Your task to perform on an android device: turn smart compose on in the gmail app Image 0: 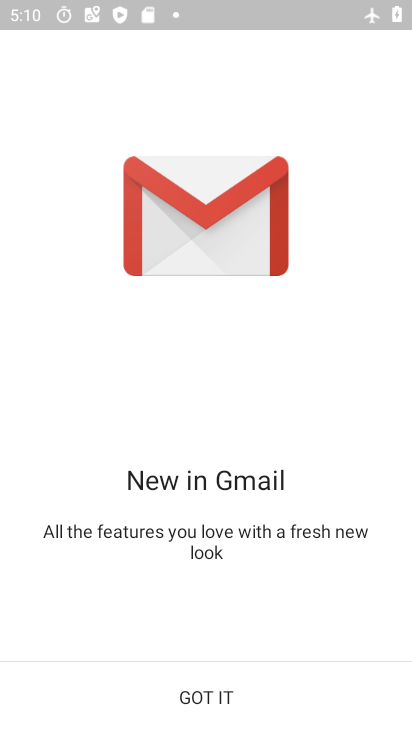
Step 0: press home button
Your task to perform on an android device: turn smart compose on in the gmail app Image 1: 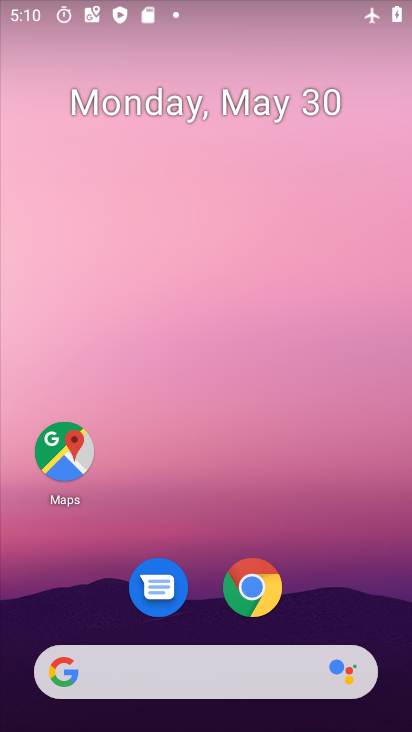
Step 1: drag from (320, 572) to (255, 112)
Your task to perform on an android device: turn smart compose on in the gmail app Image 2: 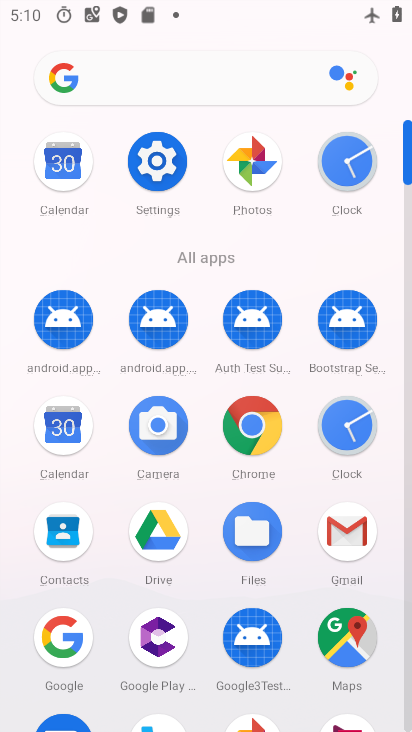
Step 2: click (344, 528)
Your task to perform on an android device: turn smart compose on in the gmail app Image 3: 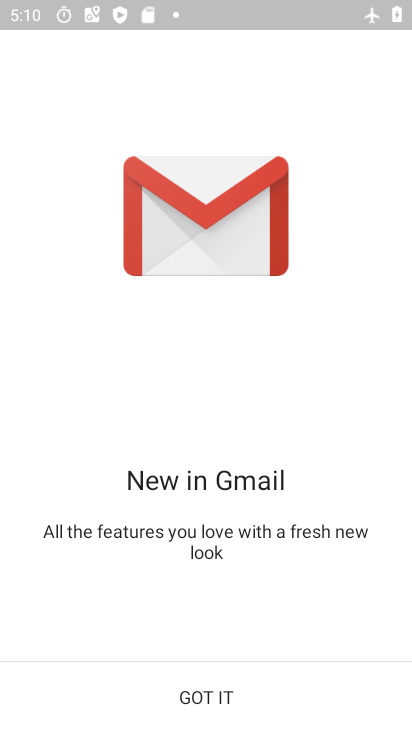
Step 3: click (224, 692)
Your task to perform on an android device: turn smart compose on in the gmail app Image 4: 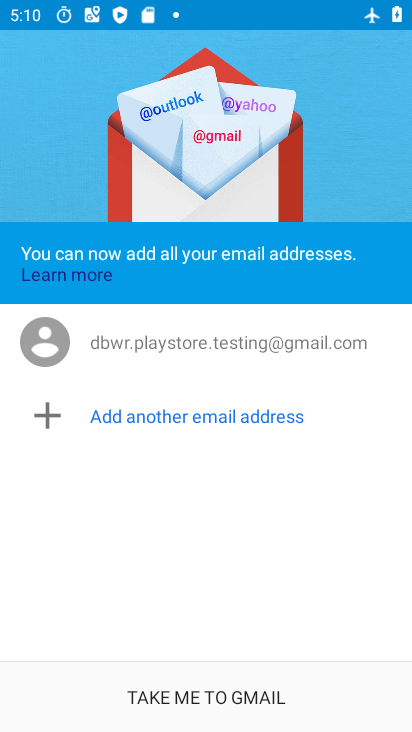
Step 4: click (224, 692)
Your task to perform on an android device: turn smart compose on in the gmail app Image 5: 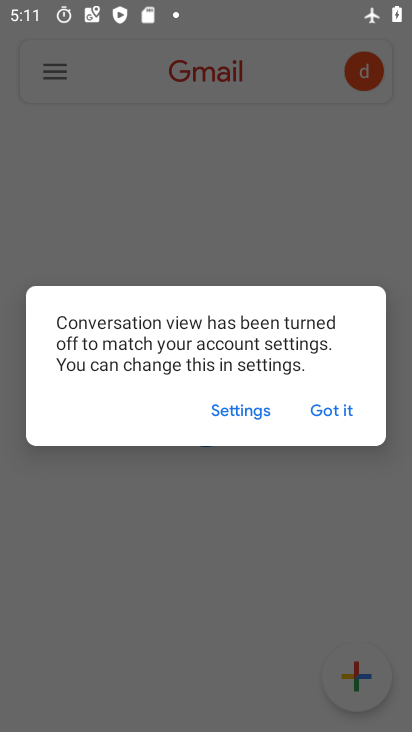
Step 5: click (331, 410)
Your task to perform on an android device: turn smart compose on in the gmail app Image 6: 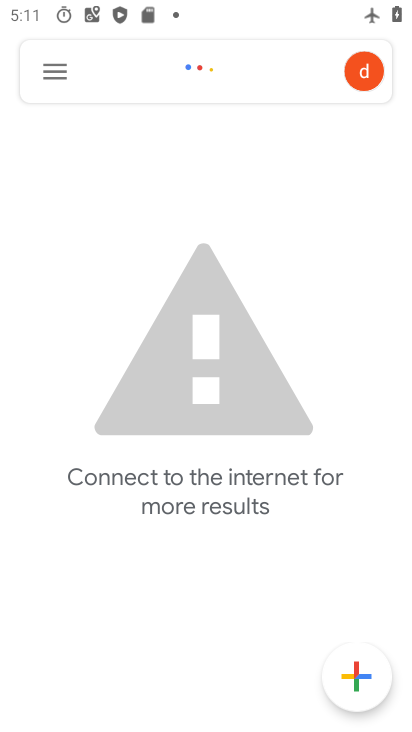
Step 6: click (53, 77)
Your task to perform on an android device: turn smart compose on in the gmail app Image 7: 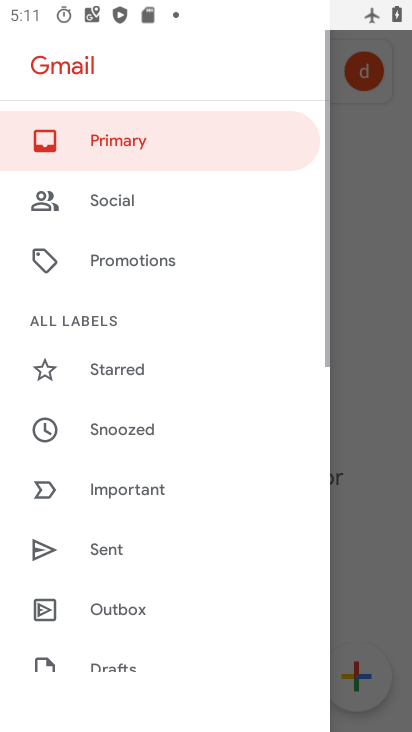
Step 7: drag from (138, 428) to (152, 384)
Your task to perform on an android device: turn smart compose on in the gmail app Image 8: 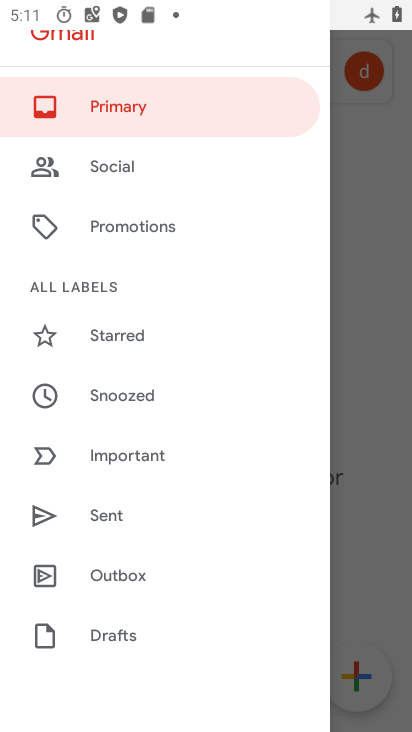
Step 8: drag from (122, 481) to (151, 405)
Your task to perform on an android device: turn smart compose on in the gmail app Image 9: 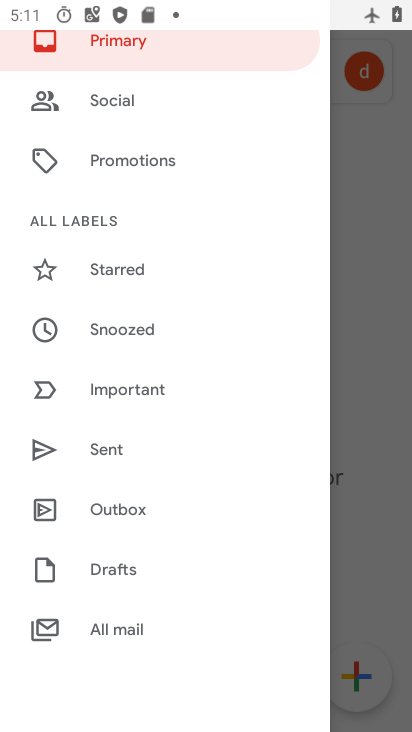
Step 9: drag from (115, 483) to (137, 403)
Your task to perform on an android device: turn smart compose on in the gmail app Image 10: 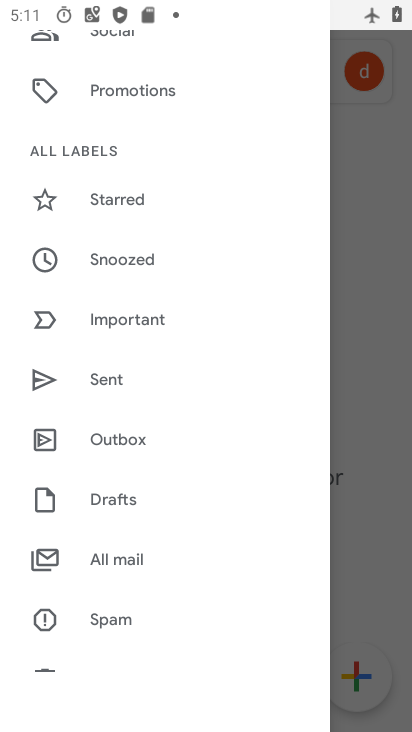
Step 10: drag from (100, 522) to (143, 439)
Your task to perform on an android device: turn smart compose on in the gmail app Image 11: 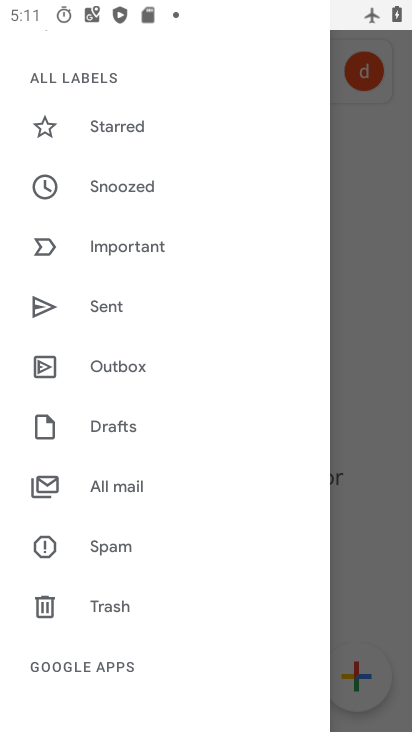
Step 11: drag from (104, 513) to (153, 427)
Your task to perform on an android device: turn smart compose on in the gmail app Image 12: 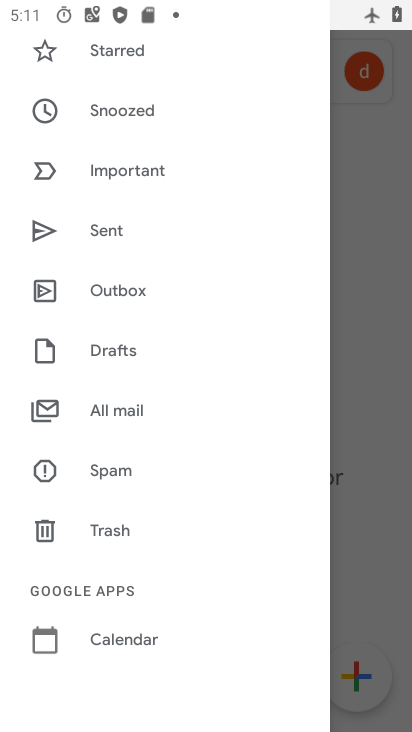
Step 12: drag from (118, 497) to (175, 416)
Your task to perform on an android device: turn smart compose on in the gmail app Image 13: 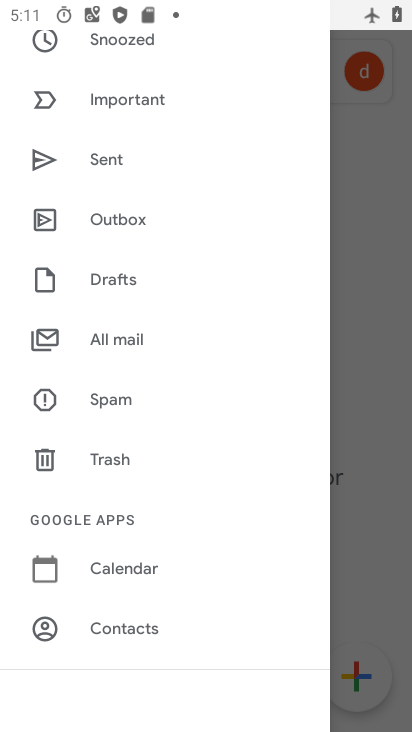
Step 13: drag from (140, 593) to (195, 510)
Your task to perform on an android device: turn smart compose on in the gmail app Image 14: 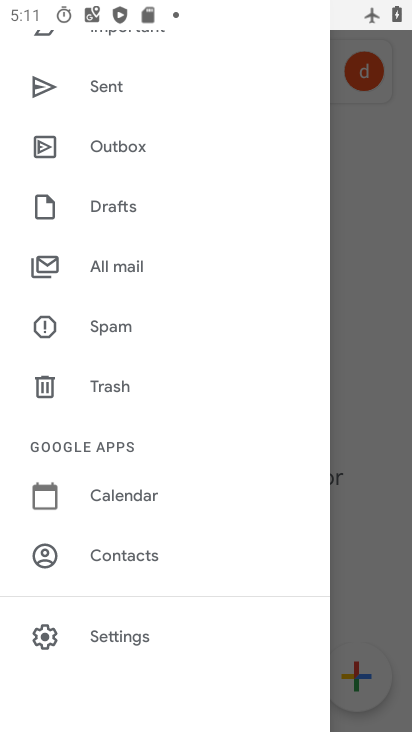
Step 14: click (122, 628)
Your task to perform on an android device: turn smart compose on in the gmail app Image 15: 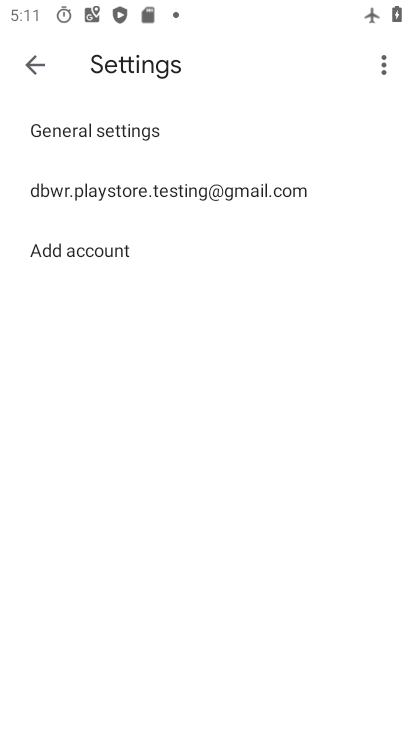
Step 15: click (110, 195)
Your task to perform on an android device: turn smart compose on in the gmail app Image 16: 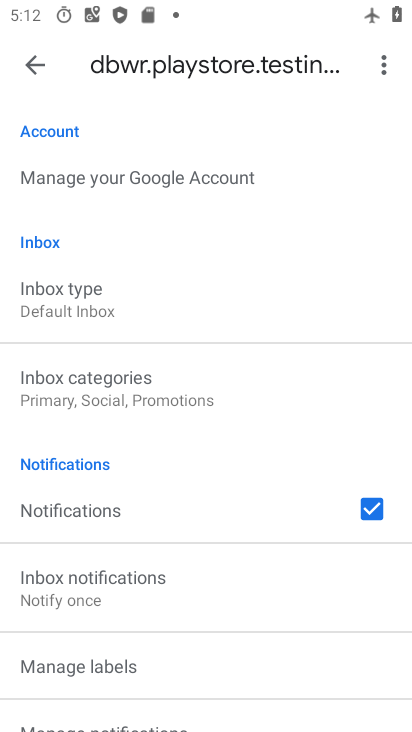
Step 16: task complete